Your task to perform on an android device: clear history in the chrome app Image 0: 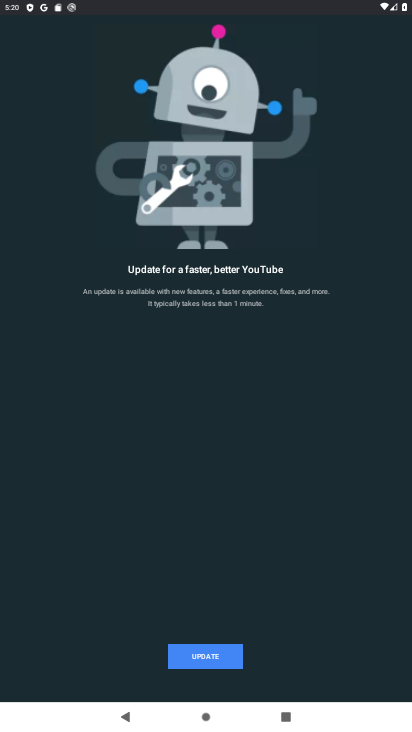
Step 0: press home button
Your task to perform on an android device: clear history in the chrome app Image 1: 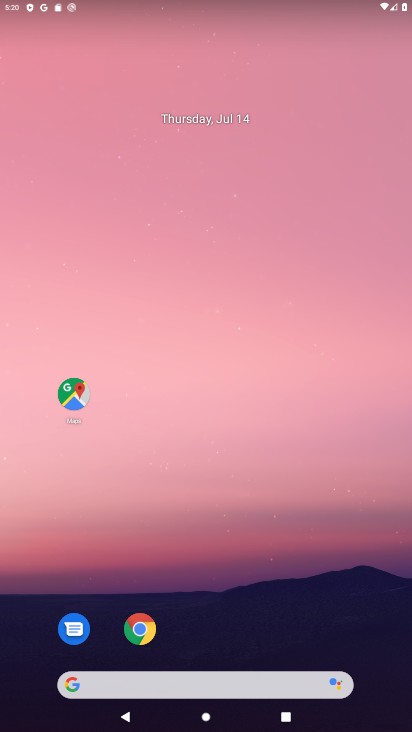
Step 1: drag from (206, 531) to (214, 168)
Your task to perform on an android device: clear history in the chrome app Image 2: 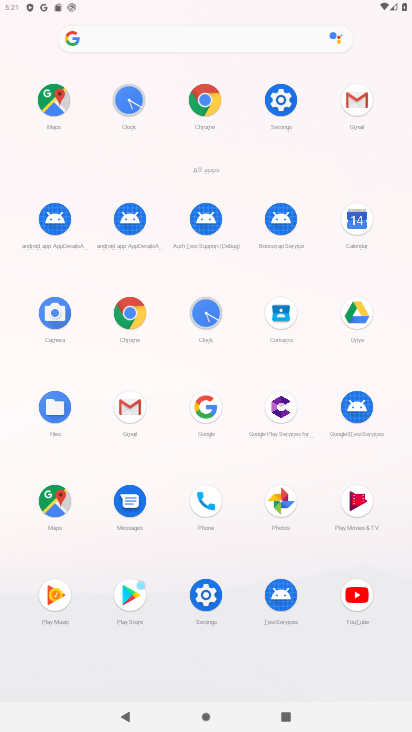
Step 2: click (132, 311)
Your task to perform on an android device: clear history in the chrome app Image 3: 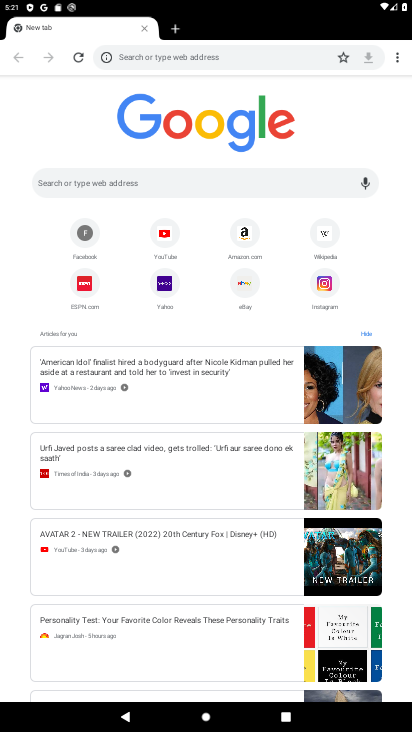
Step 3: click (399, 51)
Your task to perform on an android device: clear history in the chrome app Image 4: 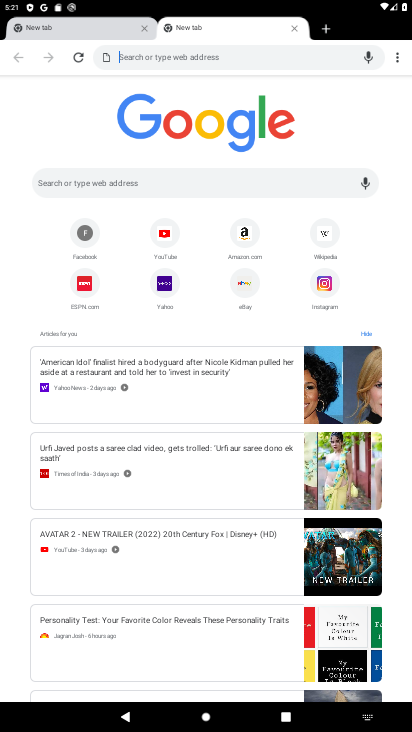
Step 4: click (397, 55)
Your task to perform on an android device: clear history in the chrome app Image 5: 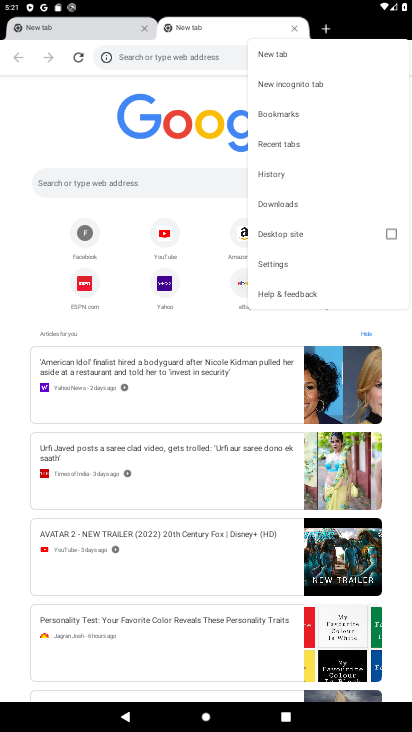
Step 5: click (287, 171)
Your task to perform on an android device: clear history in the chrome app Image 6: 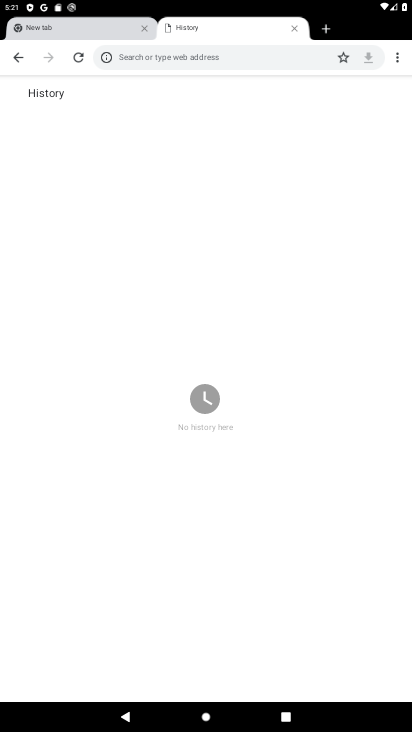
Step 6: task complete